Your task to perform on an android device: Open Reddit.com Image 0: 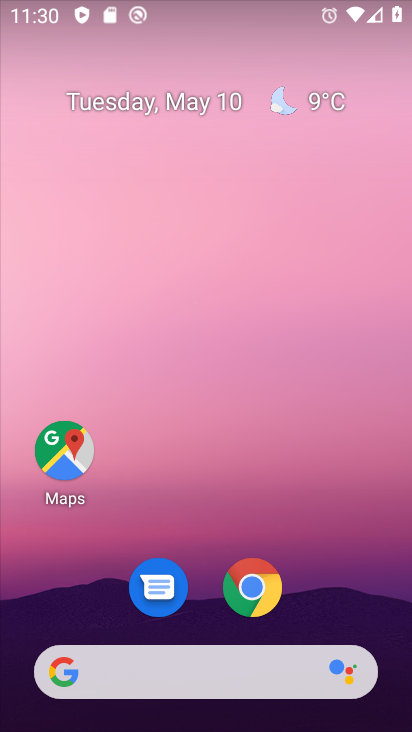
Step 0: click (254, 591)
Your task to perform on an android device: Open Reddit.com Image 1: 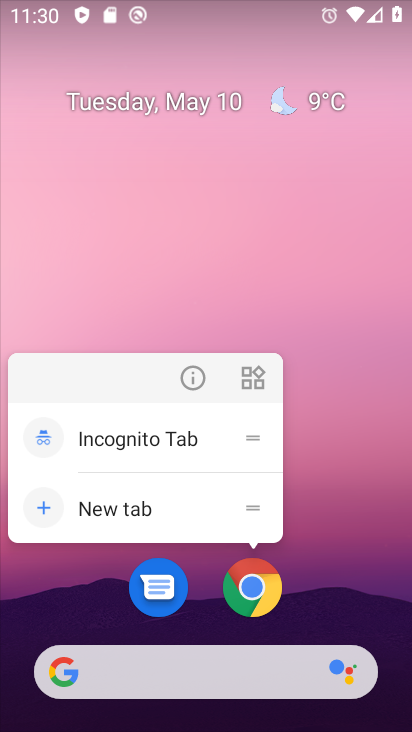
Step 1: click (251, 593)
Your task to perform on an android device: Open Reddit.com Image 2: 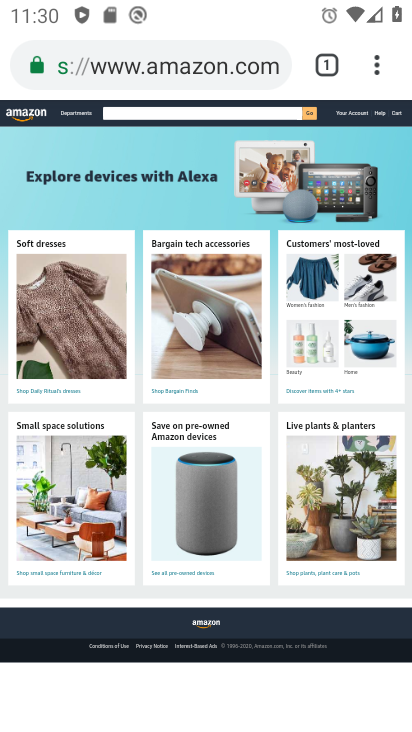
Step 2: click (113, 73)
Your task to perform on an android device: Open Reddit.com Image 3: 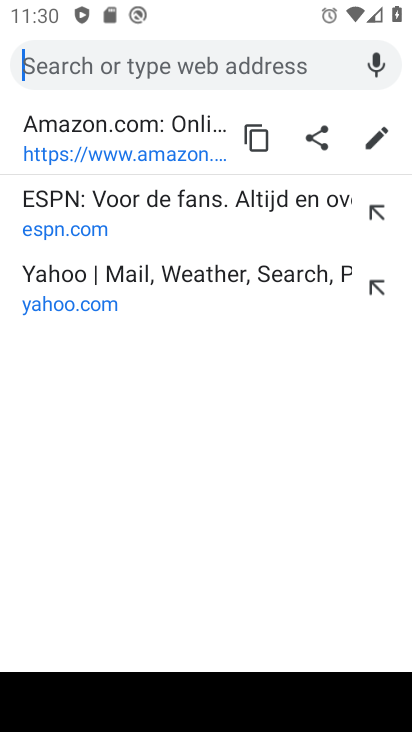
Step 3: type "reddit.com"
Your task to perform on an android device: Open Reddit.com Image 4: 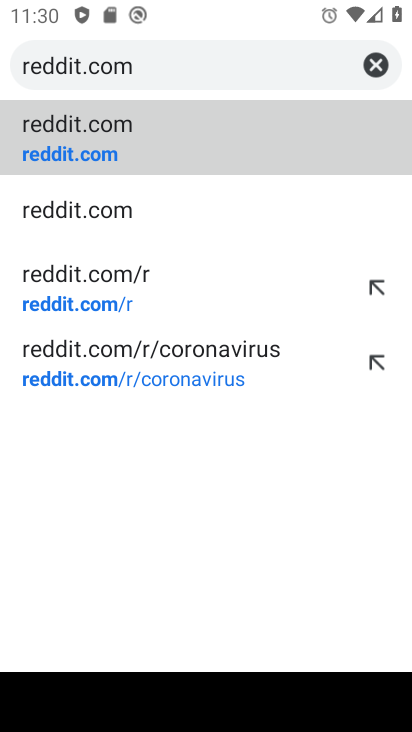
Step 4: click (83, 146)
Your task to perform on an android device: Open Reddit.com Image 5: 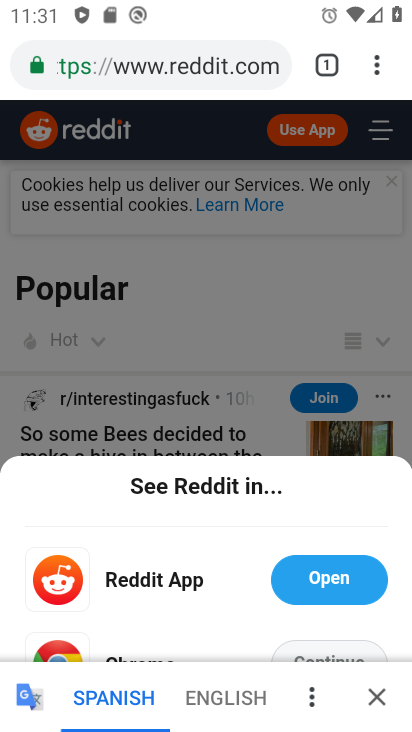
Step 5: task complete